Your task to perform on an android device: Turn off the flashlight Image 0: 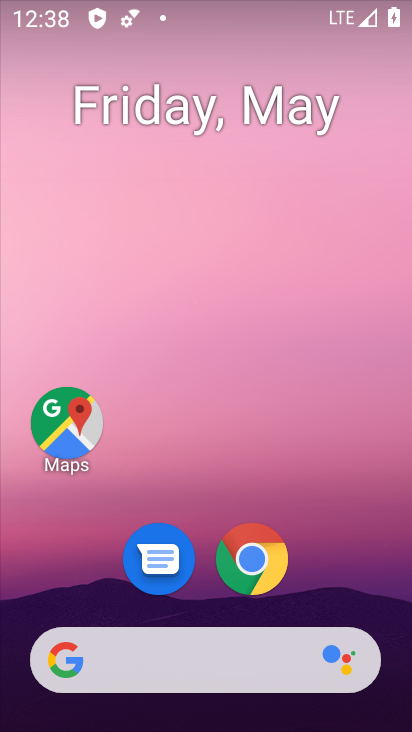
Step 0: drag from (322, 571) to (317, 126)
Your task to perform on an android device: Turn off the flashlight Image 1: 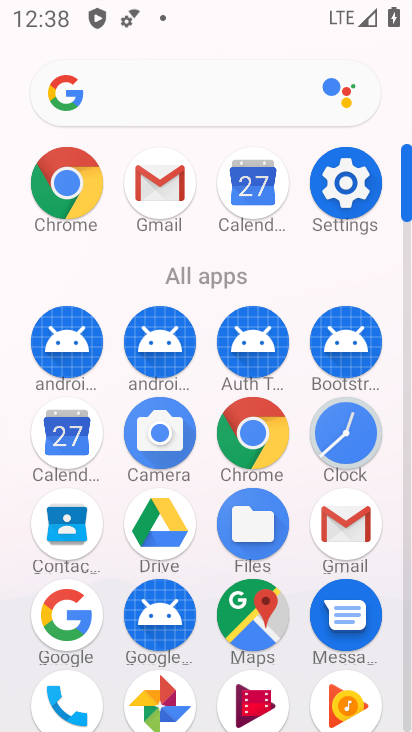
Step 1: click (336, 181)
Your task to perform on an android device: Turn off the flashlight Image 2: 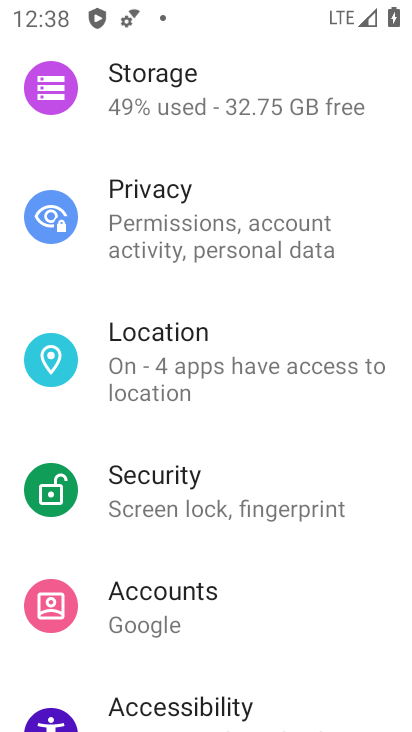
Step 2: drag from (345, 170) to (215, 645)
Your task to perform on an android device: Turn off the flashlight Image 3: 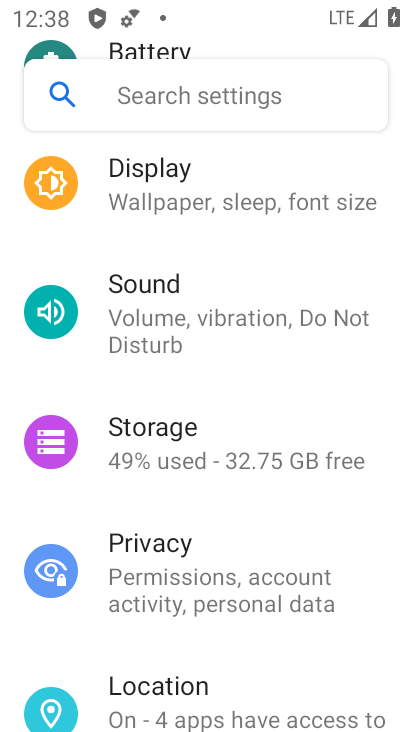
Step 3: drag from (225, 208) to (242, 533)
Your task to perform on an android device: Turn off the flashlight Image 4: 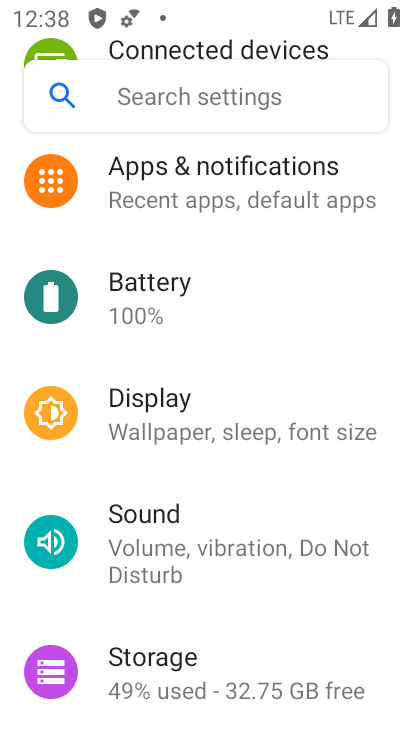
Step 4: drag from (218, 224) to (303, 585)
Your task to perform on an android device: Turn off the flashlight Image 5: 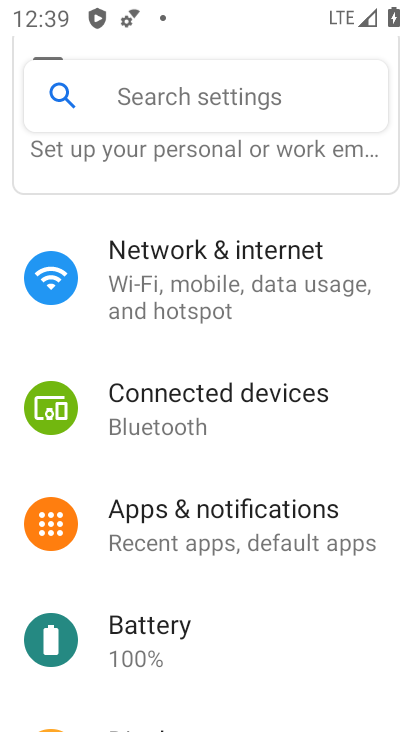
Step 5: drag from (175, 586) to (255, 281)
Your task to perform on an android device: Turn off the flashlight Image 6: 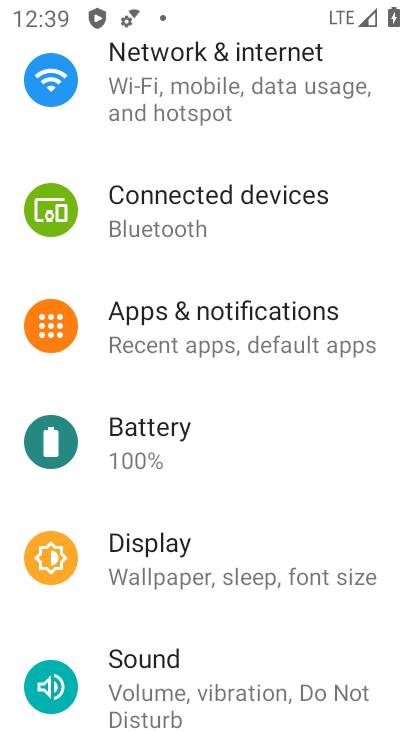
Step 6: click (176, 571)
Your task to perform on an android device: Turn off the flashlight Image 7: 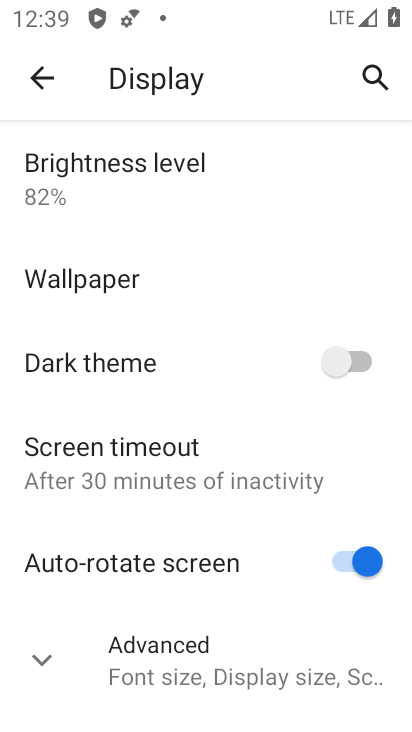
Step 7: task complete